Your task to perform on an android device: see sites visited before in the chrome app Image 0: 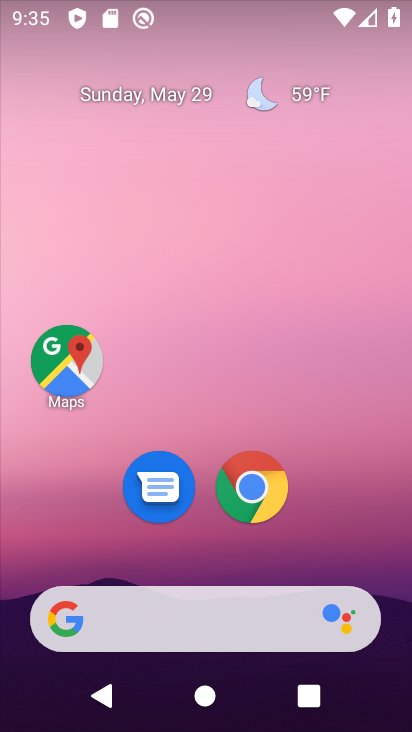
Step 0: click (258, 493)
Your task to perform on an android device: see sites visited before in the chrome app Image 1: 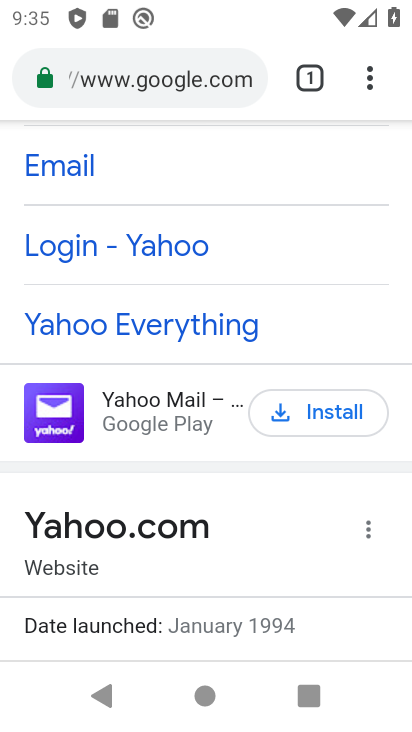
Step 1: click (365, 72)
Your task to perform on an android device: see sites visited before in the chrome app Image 2: 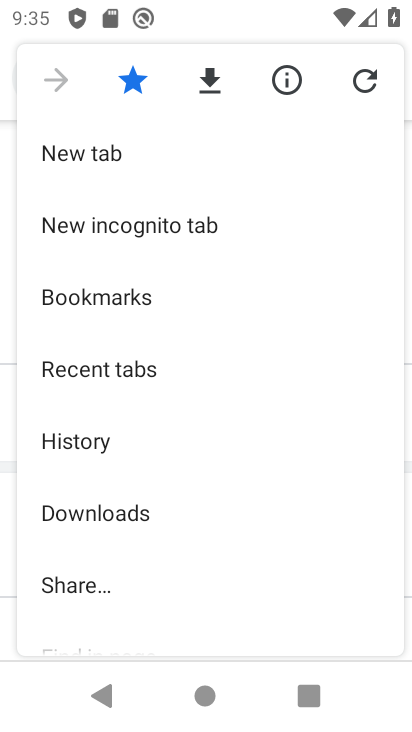
Step 2: drag from (265, 595) to (244, 208)
Your task to perform on an android device: see sites visited before in the chrome app Image 3: 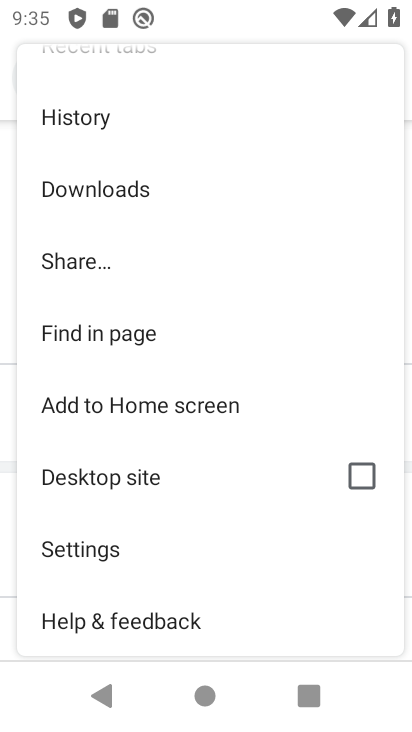
Step 3: drag from (287, 193) to (321, 513)
Your task to perform on an android device: see sites visited before in the chrome app Image 4: 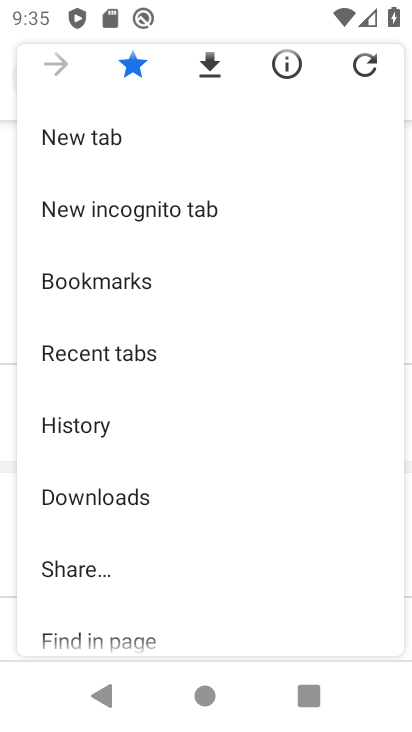
Step 4: click (85, 351)
Your task to perform on an android device: see sites visited before in the chrome app Image 5: 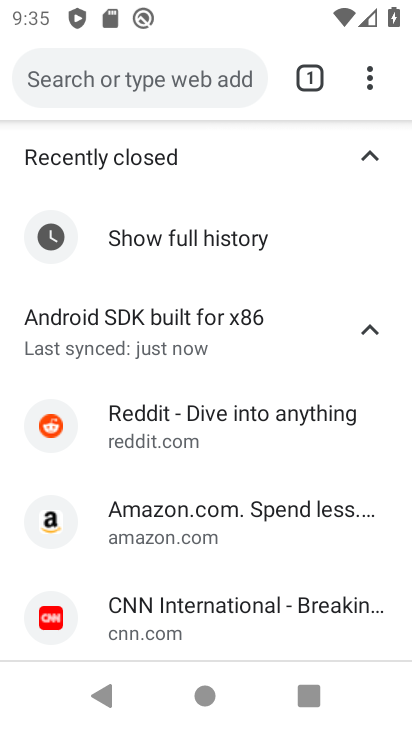
Step 5: task complete